Your task to perform on an android device: toggle notification dots Image 0: 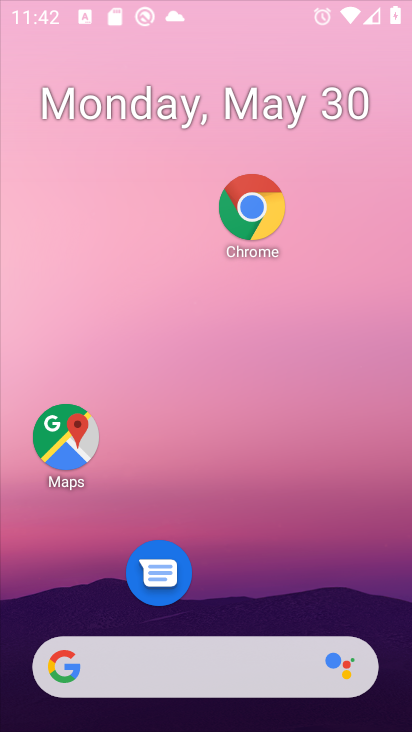
Step 0: drag from (242, 134) to (271, 11)
Your task to perform on an android device: toggle notification dots Image 1: 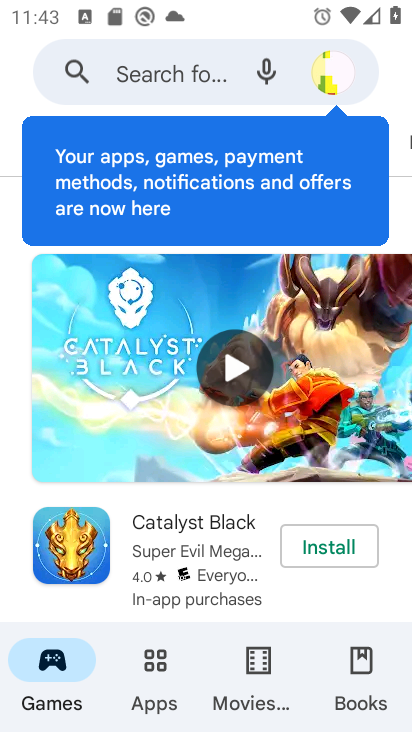
Step 1: press home button
Your task to perform on an android device: toggle notification dots Image 2: 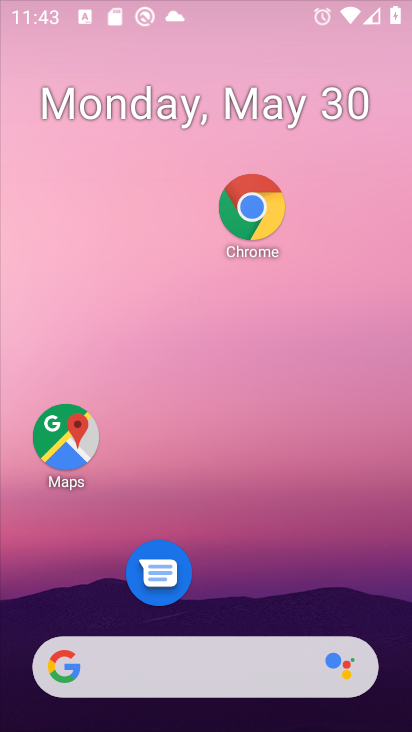
Step 2: drag from (247, 484) to (286, 49)
Your task to perform on an android device: toggle notification dots Image 3: 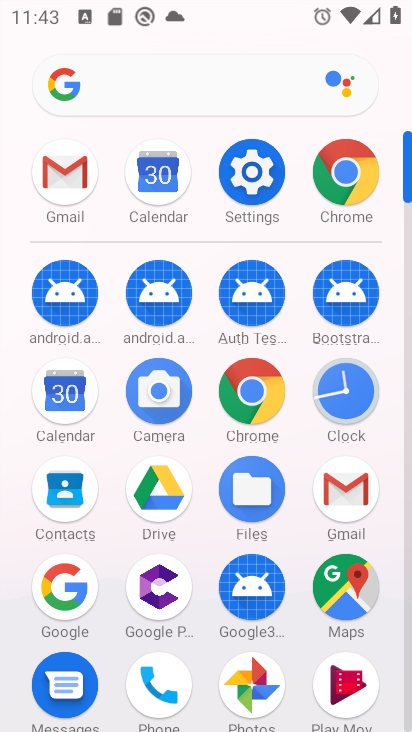
Step 3: click (256, 189)
Your task to perform on an android device: toggle notification dots Image 4: 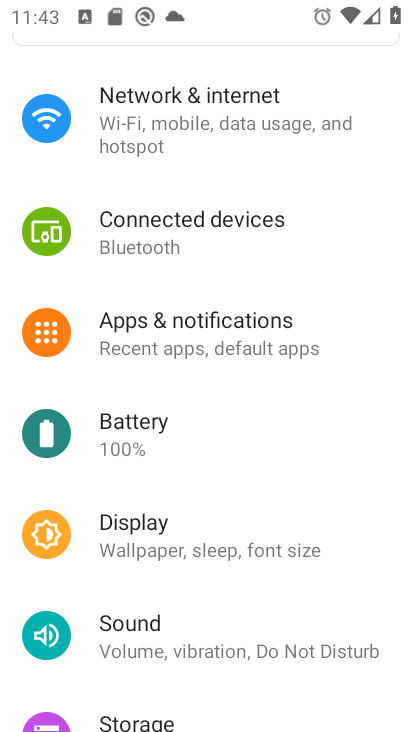
Step 4: click (247, 342)
Your task to perform on an android device: toggle notification dots Image 5: 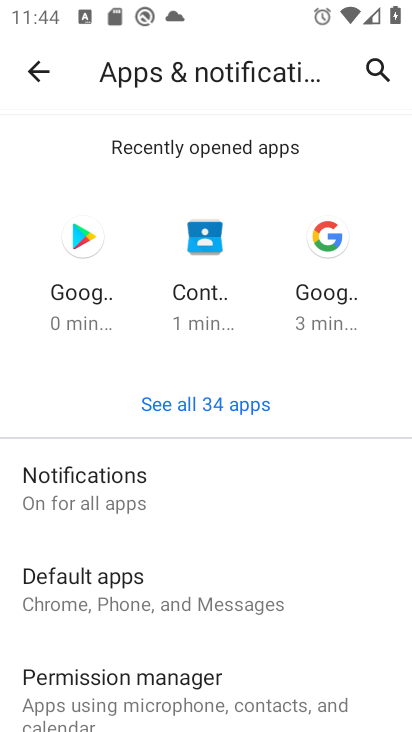
Step 5: drag from (233, 624) to (227, 417)
Your task to perform on an android device: toggle notification dots Image 6: 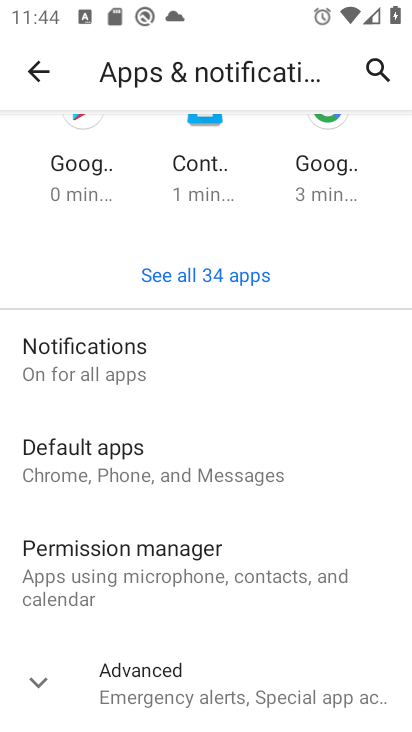
Step 6: click (158, 363)
Your task to perform on an android device: toggle notification dots Image 7: 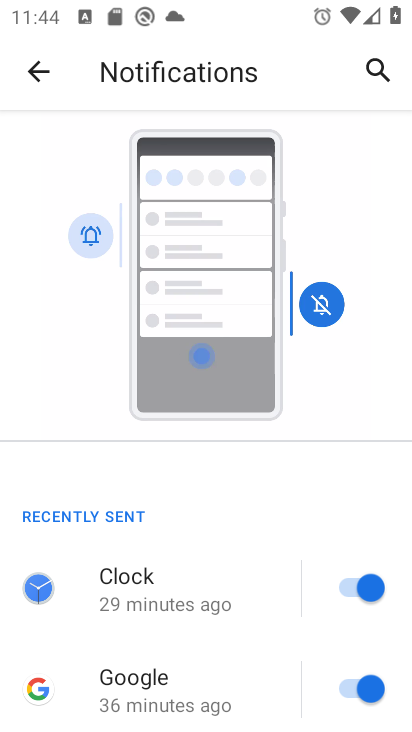
Step 7: drag from (174, 572) to (202, 255)
Your task to perform on an android device: toggle notification dots Image 8: 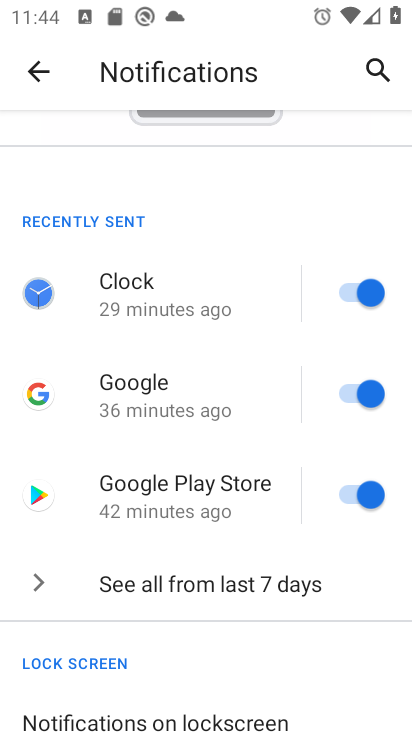
Step 8: drag from (179, 559) to (278, 252)
Your task to perform on an android device: toggle notification dots Image 9: 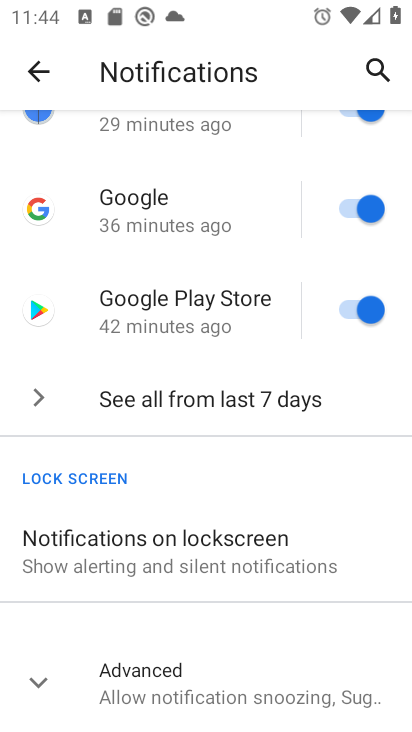
Step 9: click (174, 684)
Your task to perform on an android device: toggle notification dots Image 10: 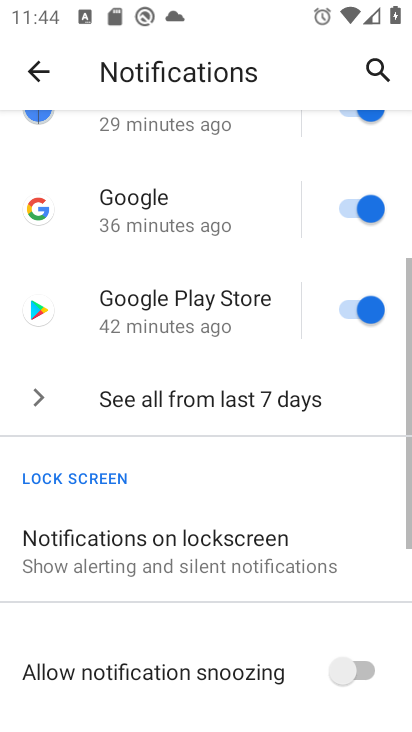
Step 10: drag from (199, 556) to (281, 97)
Your task to perform on an android device: toggle notification dots Image 11: 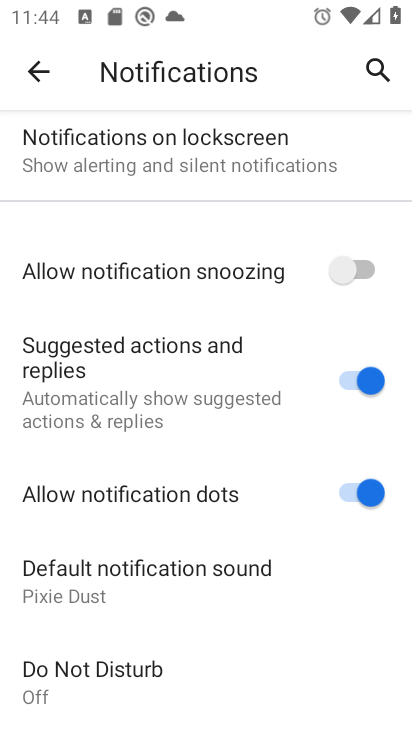
Step 11: click (321, 495)
Your task to perform on an android device: toggle notification dots Image 12: 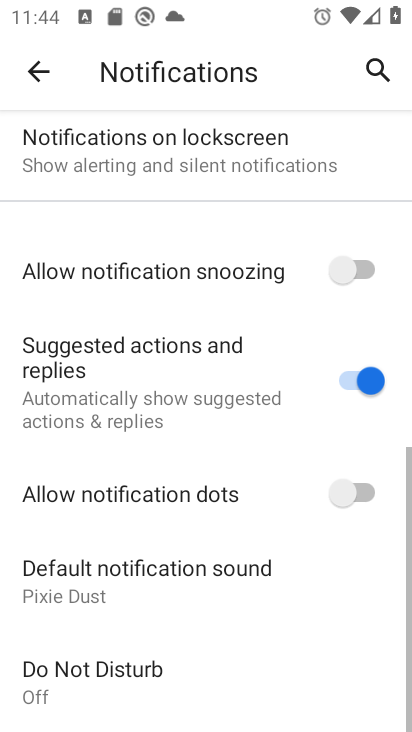
Step 12: task complete